Your task to perform on an android device: Open internet settings Image 0: 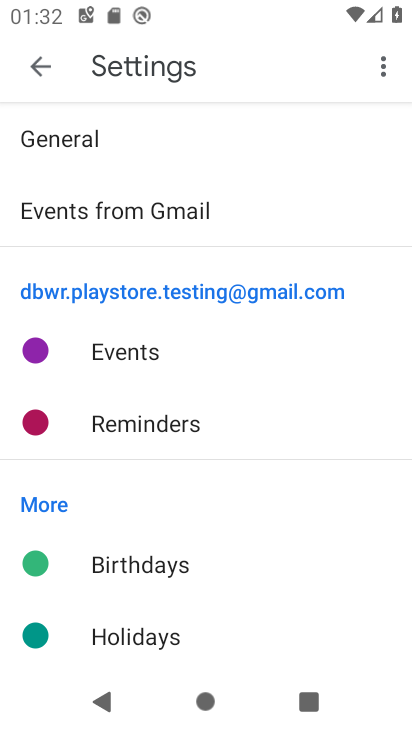
Step 0: press home button
Your task to perform on an android device: Open internet settings Image 1: 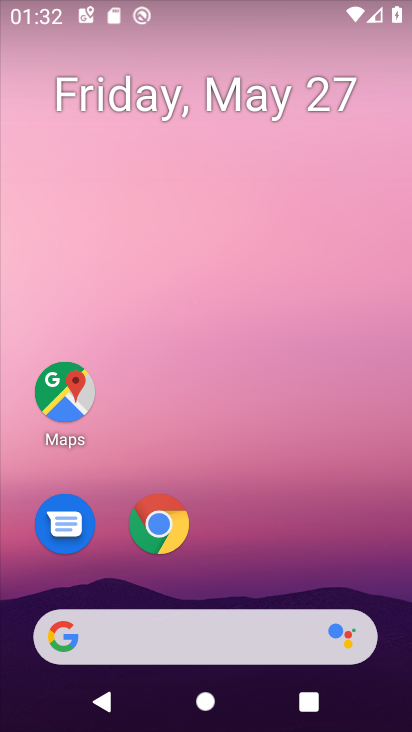
Step 1: drag from (297, 517) to (320, 33)
Your task to perform on an android device: Open internet settings Image 2: 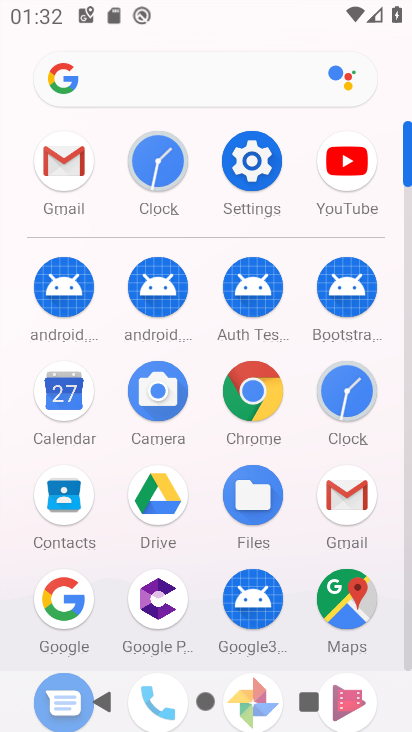
Step 2: click (261, 154)
Your task to perform on an android device: Open internet settings Image 3: 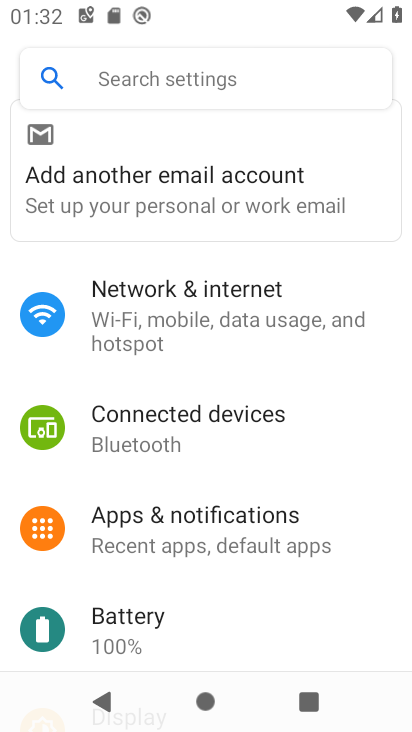
Step 3: click (240, 302)
Your task to perform on an android device: Open internet settings Image 4: 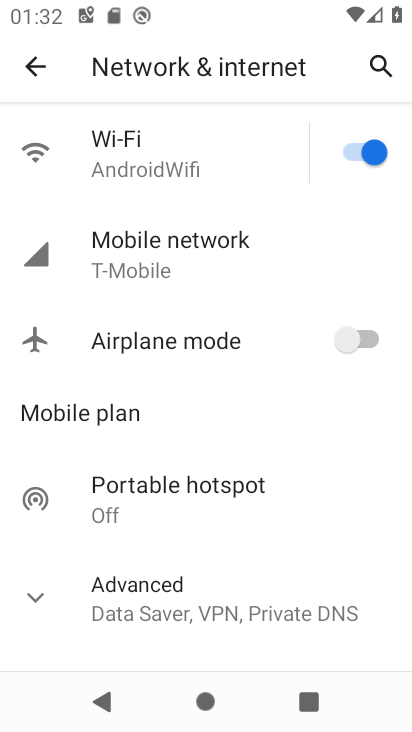
Step 4: task complete